Your task to perform on an android device: toggle translation in the chrome app Image 0: 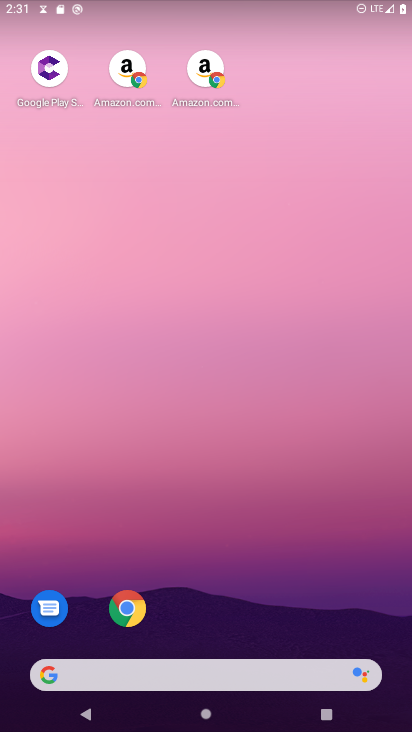
Step 0: drag from (303, 668) to (348, 8)
Your task to perform on an android device: toggle translation in the chrome app Image 1: 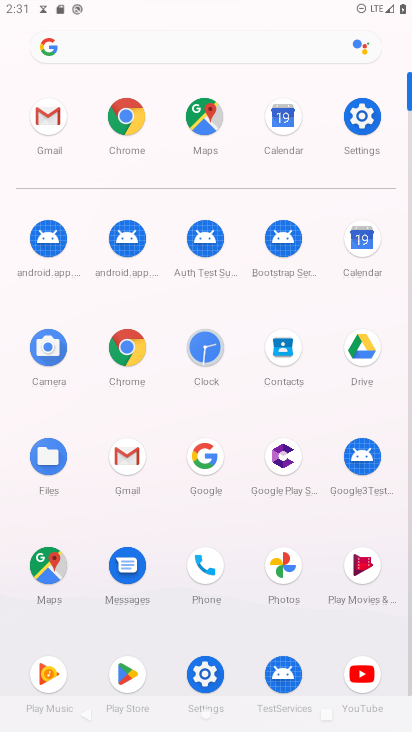
Step 1: click (130, 350)
Your task to perform on an android device: toggle translation in the chrome app Image 2: 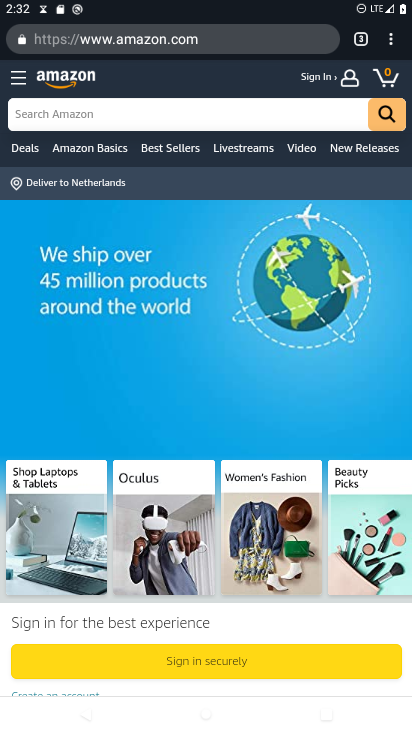
Step 2: drag from (393, 44) to (260, 438)
Your task to perform on an android device: toggle translation in the chrome app Image 3: 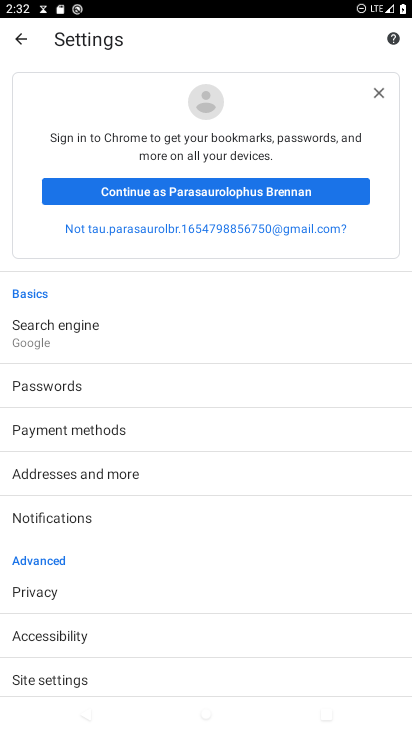
Step 3: drag from (104, 594) to (131, 208)
Your task to perform on an android device: toggle translation in the chrome app Image 4: 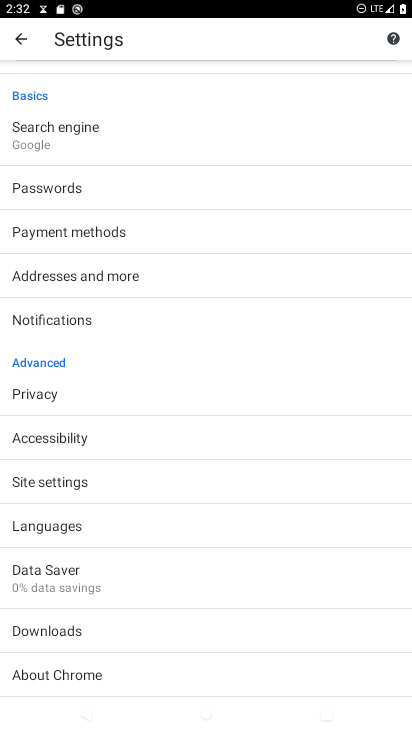
Step 4: click (88, 529)
Your task to perform on an android device: toggle translation in the chrome app Image 5: 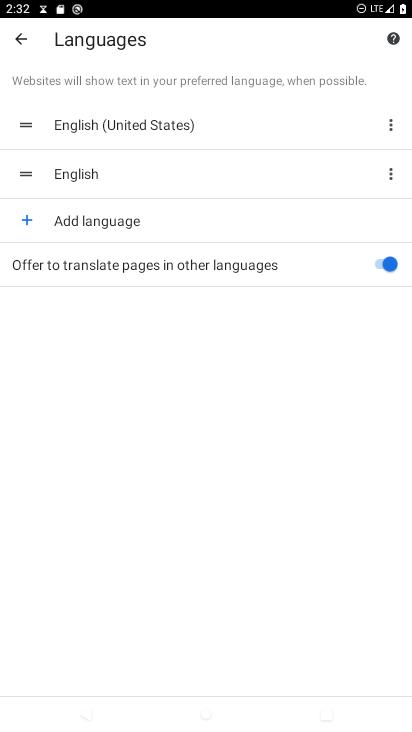
Step 5: click (385, 261)
Your task to perform on an android device: toggle translation in the chrome app Image 6: 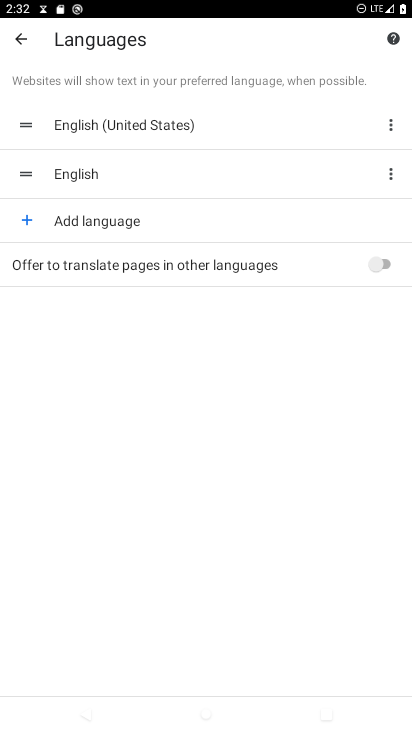
Step 6: task complete